Your task to perform on an android device: Clear the shopping cart on costco.com. Add "acer predator" to the cart on costco.com, then select checkout. Image 0: 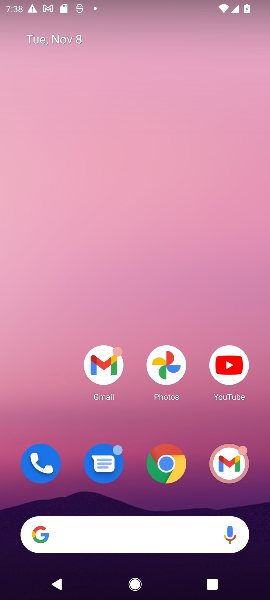
Step 0: click (180, 459)
Your task to perform on an android device: Clear the shopping cart on costco.com. Add "acer predator" to the cart on costco.com, then select checkout. Image 1: 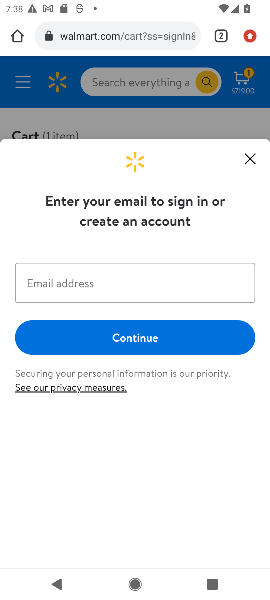
Step 1: click (101, 28)
Your task to perform on an android device: Clear the shopping cart on costco.com. Add "acer predator" to the cart on costco.com, then select checkout. Image 2: 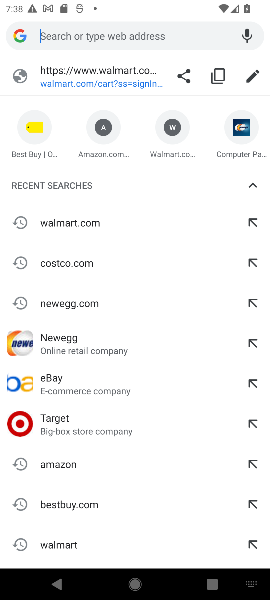
Step 2: click (78, 255)
Your task to perform on an android device: Clear the shopping cart on costco.com. Add "acer predator" to the cart on costco.com, then select checkout. Image 3: 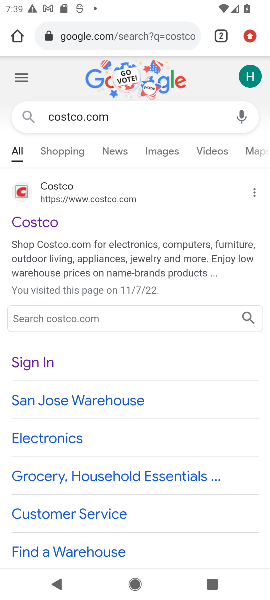
Step 3: click (50, 215)
Your task to perform on an android device: Clear the shopping cart on costco.com. Add "acer predator" to the cart on costco.com, then select checkout. Image 4: 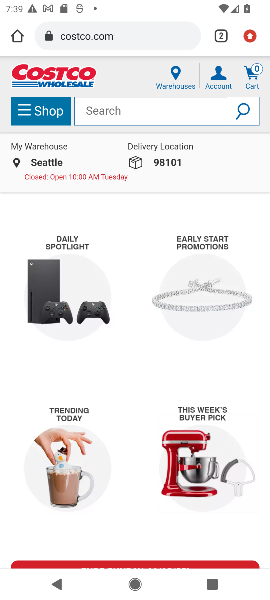
Step 4: click (252, 68)
Your task to perform on an android device: Clear the shopping cart on costco.com. Add "acer predator" to the cart on costco.com, then select checkout. Image 5: 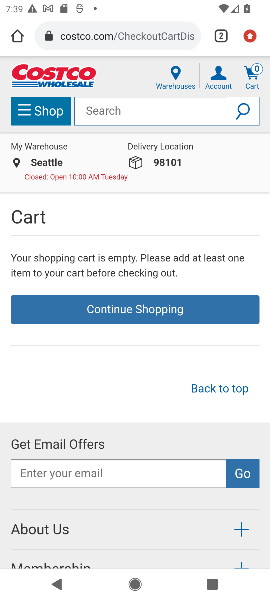
Step 5: click (131, 117)
Your task to perform on an android device: Clear the shopping cart on costco.com. Add "acer predator" to the cart on costco.com, then select checkout. Image 6: 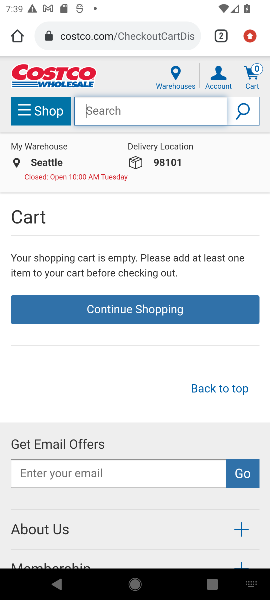
Step 6: type "acer predator"
Your task to perform on an android device: Clear the shopping cart on costco.com. Add "acer predator" to the cart on costco.com, then select checkout. Image 7: 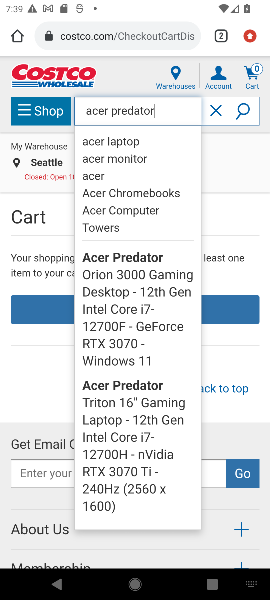
Step 7: click (240, 110)
Your task to perform on an android device: Clear the shopping cart on costco.com. Add "acer predator" to the cart on costco.com, then select checkout. Image 8: 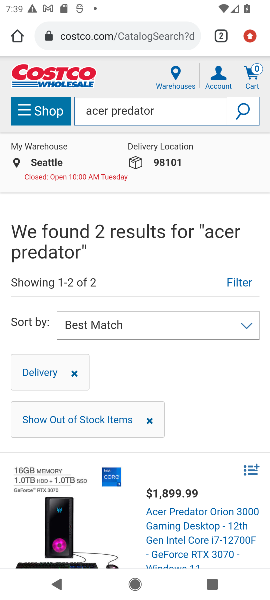
Step 8: click (157, 525)
Your task to perform on an android device: Clear the shopping cart on costco.com. Add "acer predator" to the cart on costco.com, then select checkout. Image 9: 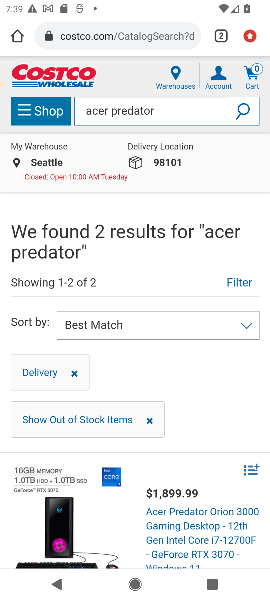
Step 9: drag from (157, 525) to (187, 251)
Your task to perform on an android device: Clear the shopping cart on costco.com. Add "acer predator" to the cart on costco.com, then select checkout. Image 10: 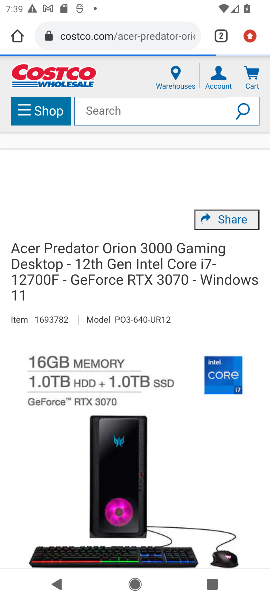
Step 10: click (216, 385)
Your task to perform on an android device: Clear the shopping cart on costco.com. Add "acer predator" to the cart on costco.com, then select checkout. Image 11: 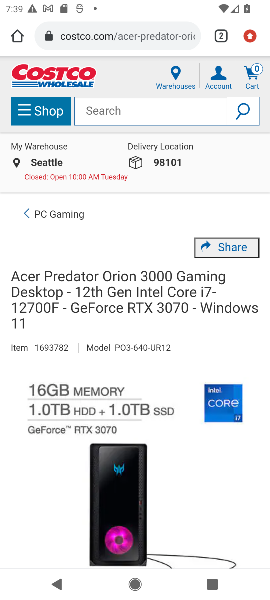
Step 11: drag from (161, 508) to (132, 141)
Your task to perform on an android device: Clear the shopping cart on costco.com. Add "acer predator" to the cart on costco.com, then select checkout. Image 12: 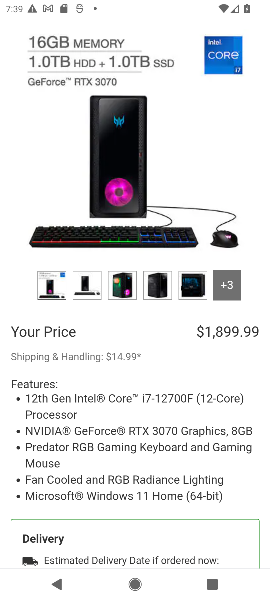
Step 12: drag from (77, 498) to (157, 142)
Your task to perform on an android device: Clear the shopping cart on costco.com. Add "acer predator" to the cart on costco.com, then select checkout. Image 13: 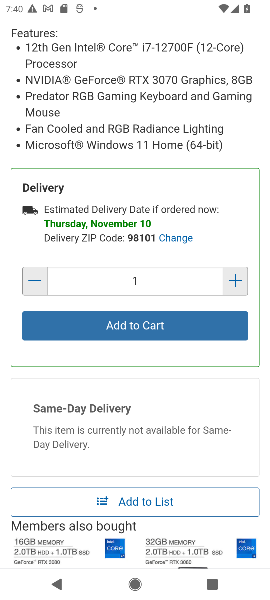
Step 13: click (147, 328)
Your task to perform on an android device: Clear the shopping cart on costco.com. Add "acer predator" to the cart on costco.com, then select checkout. Image 14: 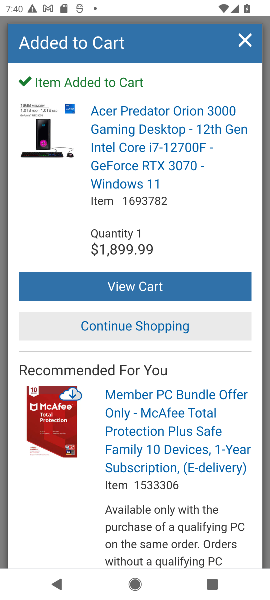
Step 14: click (134, 288)
Your task to perform on an android device: Clear the shopping cart on costco.com. Add "acer predator" to the cart on costco.com, then select checkout. Image 15: 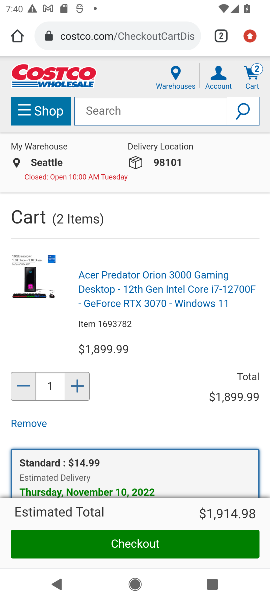
Step 15: click (92, 546)
Your task to perform on an android device: Clear the shopping cart on costco.com. Add "acer predator" to the cart on costco.com, then select checkout. Image 16: 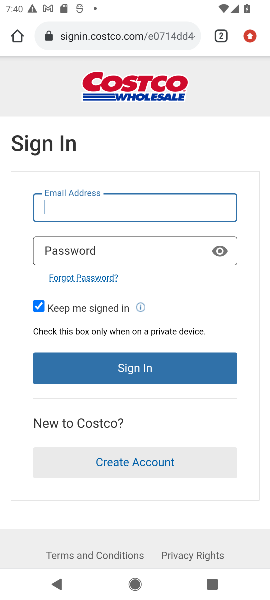
Step 16: task complete